Your task to perform on an android device: toggle notification dots Image 0: 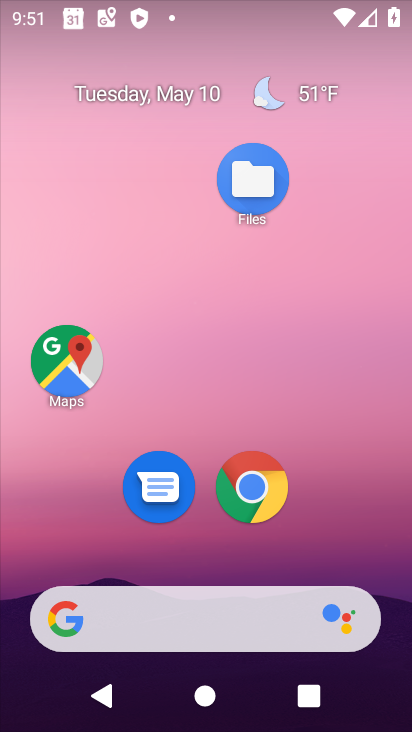
Step 0: drag from (261, 579) to (212, 51)
Your task to perform on an android device: toggle notification dots Image 1: 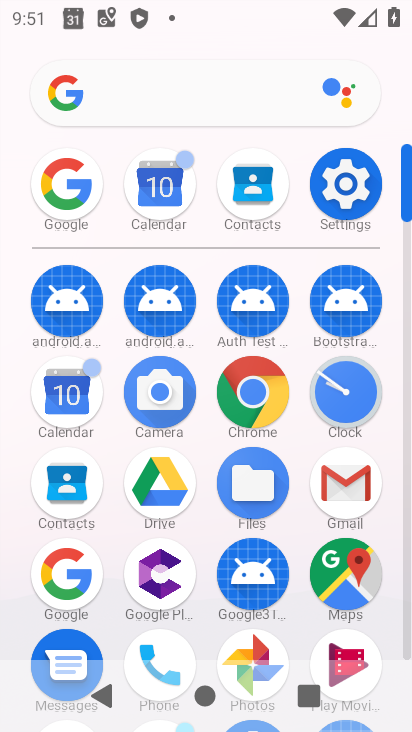
Step 1: click (353, 189)
Your task to perform on an android device: toggle notification dots Image 2: 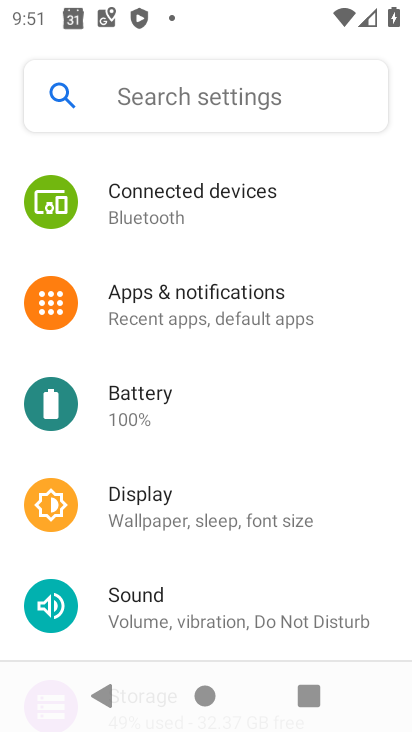
Step 2: drag from (257, 554) to (251, 383)
Your task to perform on an android device: toggle notification dots Image 3: 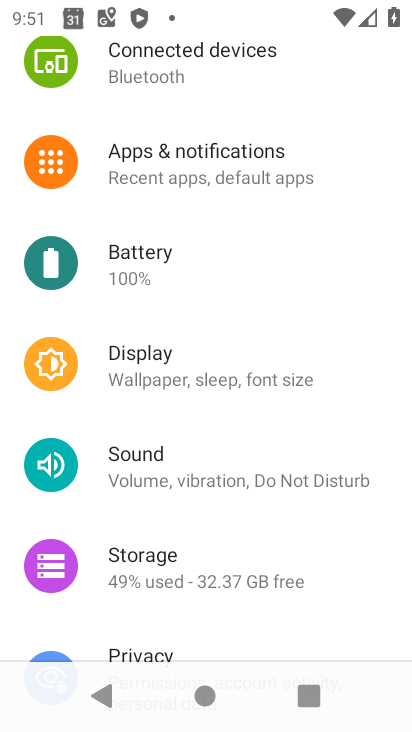
Step 3: click (214, 150)
Your task to perform on an android device: toggle notification dots Image 4: 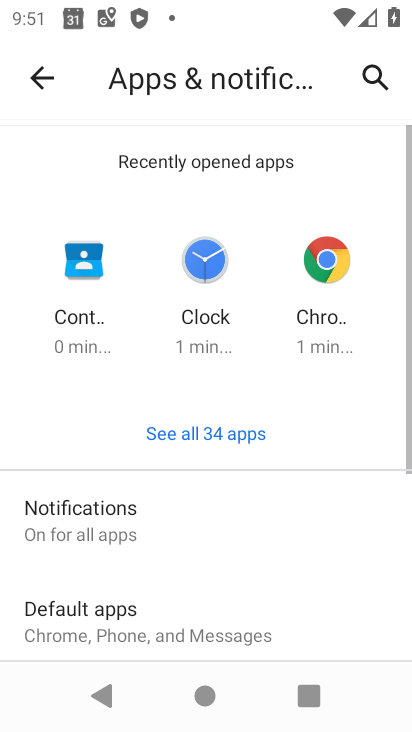
Step 4: click (118, 512)
Your task to perform on an android device: toggle notification dots Image 5: 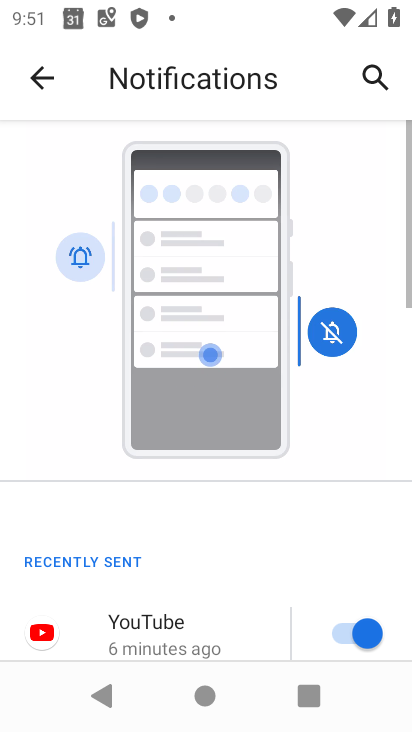
Step 5: drag from (257, 596) to (241, 21)
Your task to perform on an android device: toggle notification dots Image 6: 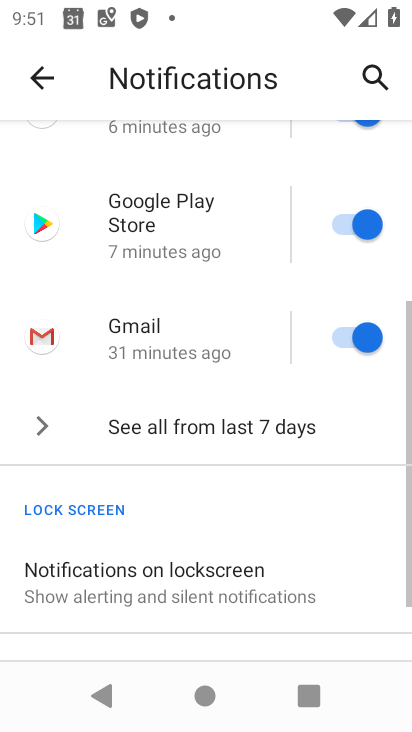
Step 6: drag from (205, 602) to (202, 232)
Your task to perform on an android device: toggle notification dots Image 7: 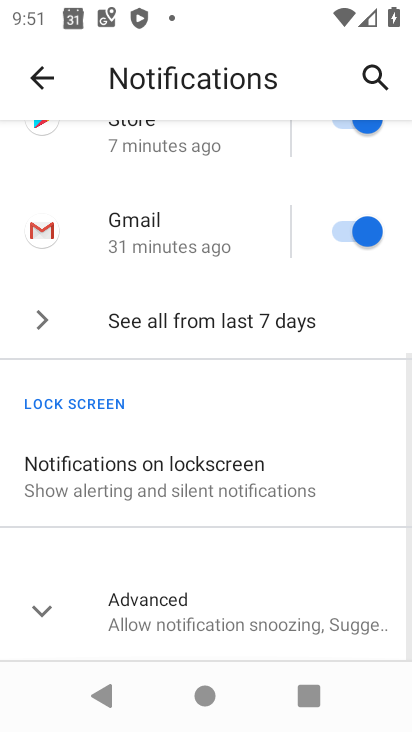
Step 7: click (133, 622)
Your task to perform on an android device: toggle notification dots Image 8: 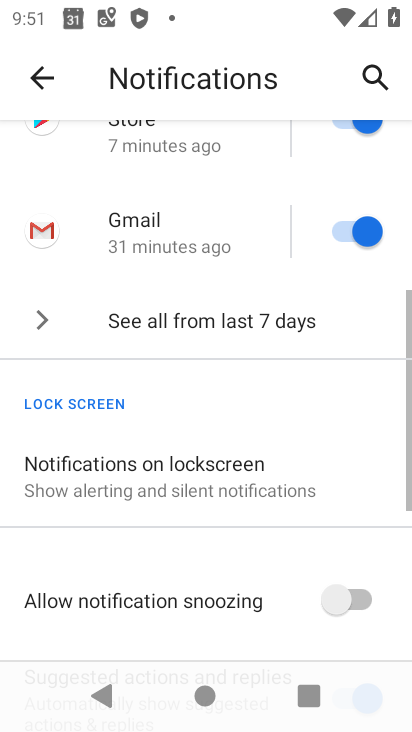
Step 8: drag from (290, 600) to (299, 206)
Your task to perform on an android device: toggle notification dots Image 9: 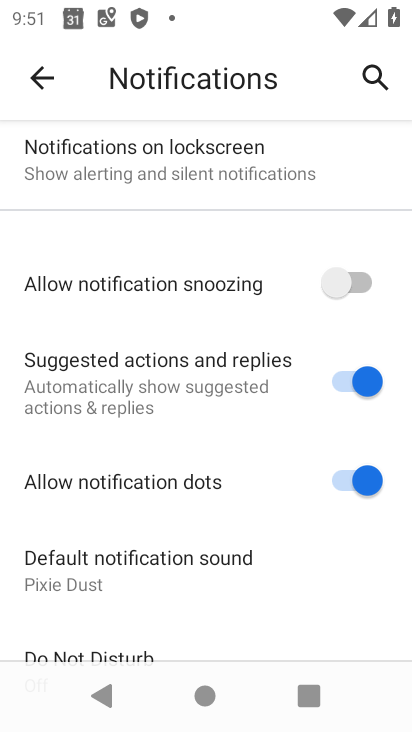
Step 9: click (354, 493)
Your task to perform on an android device: toggle notification dots Image 10: 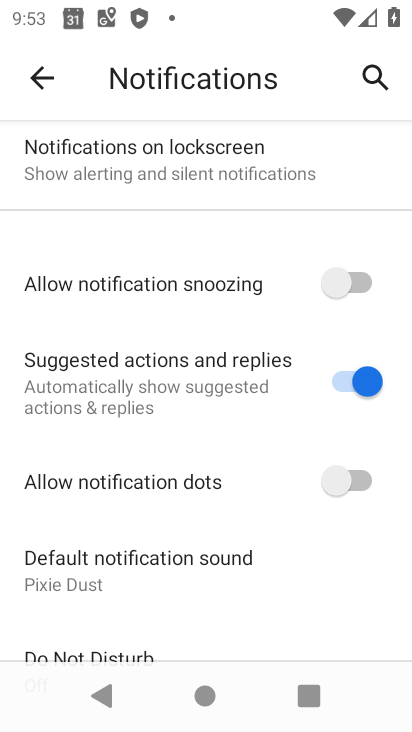
Step 10: task complete